Your task to perform on an android device: Open privacy settings Image 0: 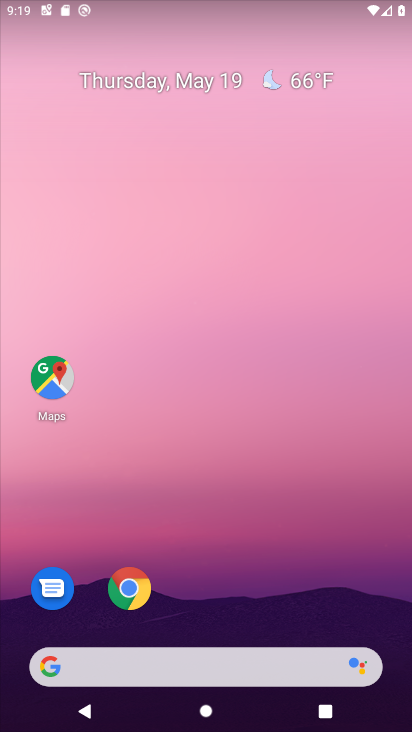
Step 0: drag from (322, 556) to (337, 229)
Your task to perform on an android device: Open privacy settings Image 1: 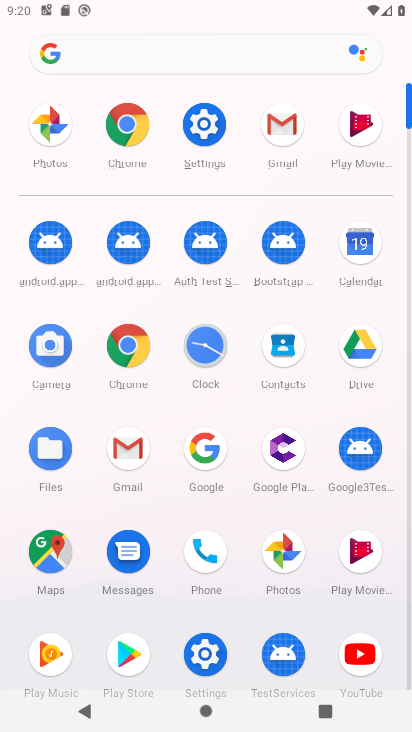
Step 1: click (203, 126)
Your task to perform on an android device: Open privacy settings Image 2: 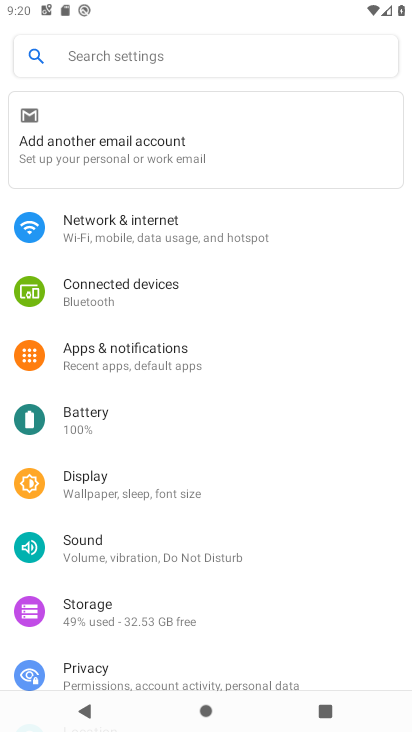
Step 2: drag from (332, 480) to (346, 377)
Your task to perform on an android device: Open privacy settings Image 3: 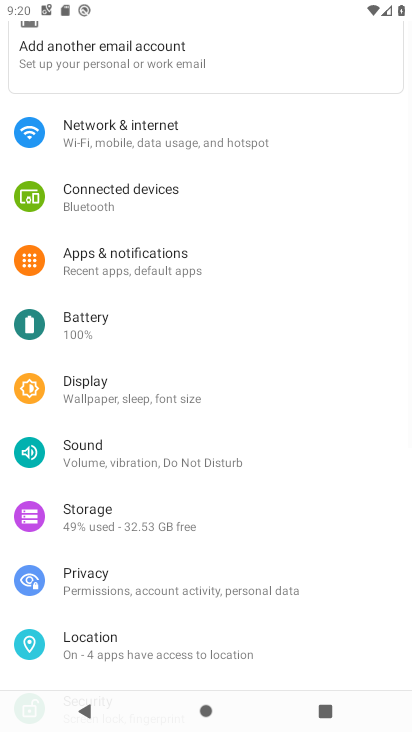
Step 3: drag from (336, 587) to (345, 451)
Your task to perform on an android device: Open privacy settings Image 4: 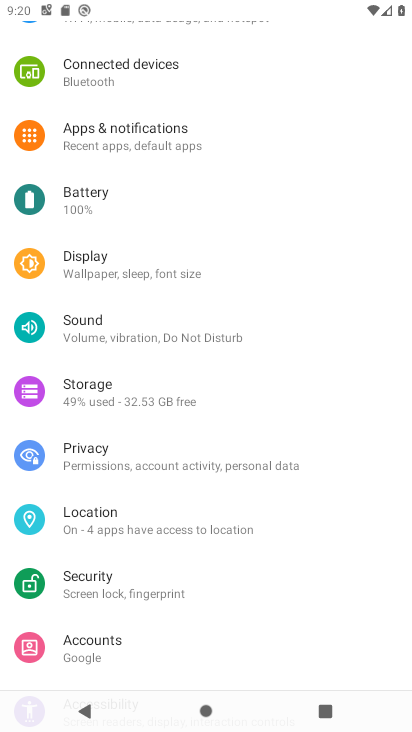
Step 4: drag from (352, 557) to (362, 465)
Your task to perform on an android device: Open privacy settings Image 5: 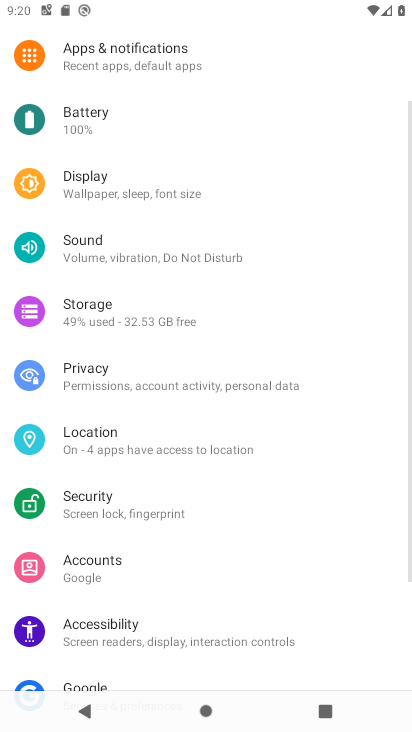
Step 5: drag from (355, 598) to (374, 475)
Your task to perform on an android device: Open privacy settings Image 6: 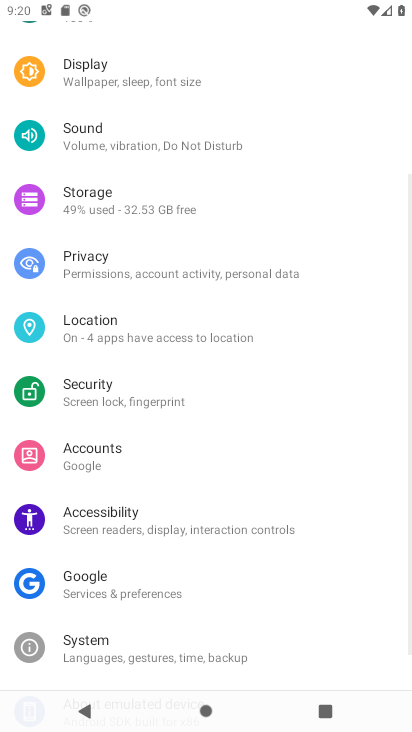
Step 6: drag from (355, 601) to (368, 485)
Your task to perform on an android device: Open privacy settings Image 7: 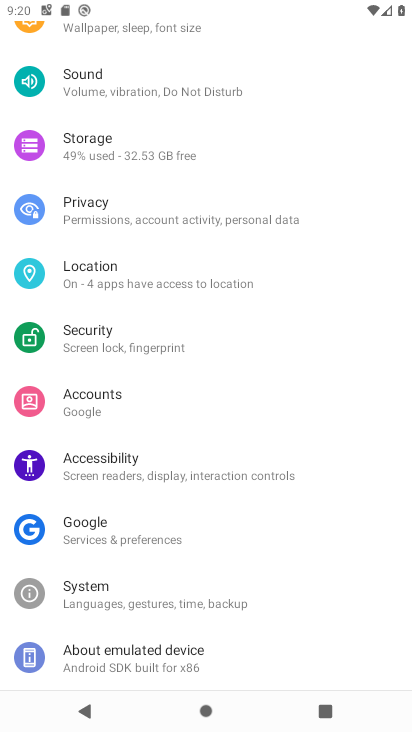
Step 7: drag from (350, 605) to (362, 462)
Your task to perform on an android device: Open privacy settings Image 8: 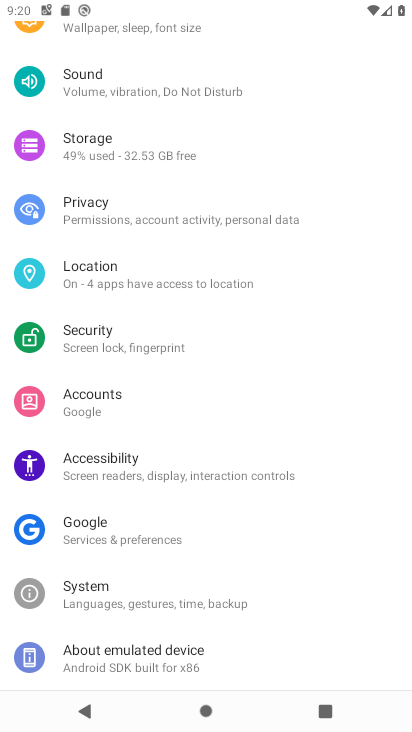
Step 8: drag from (361, 338) to (344, 434)
Your task to perform on an android device: Open privacy settings Image 9: 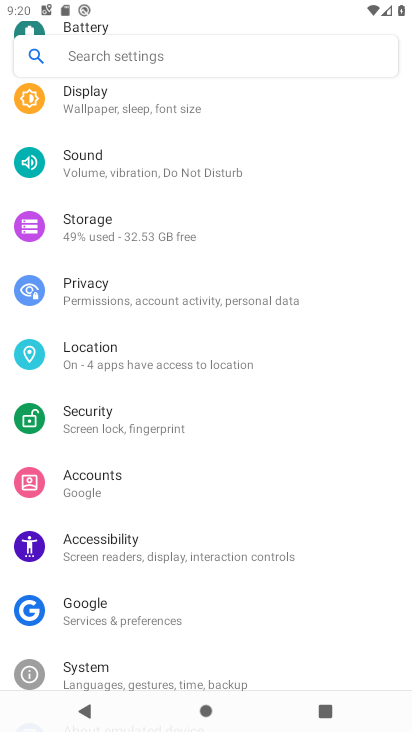
Step 9: drag from (354, 328) to (331, 461)
Your task to perform on an android device: Open privacy settings Image 10: 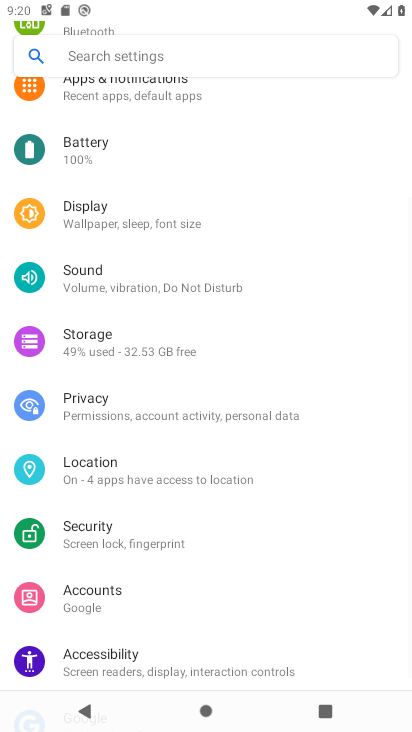
Step 10: drag from (341, 330) to (345, 435)
Your task to perform on an android device: Open privacy settings Image 11: 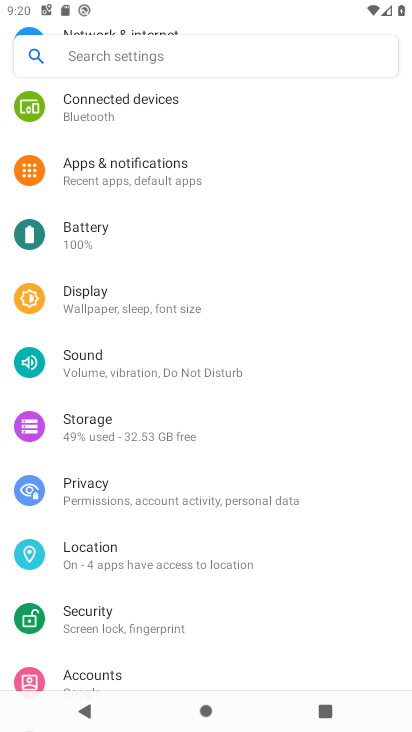
Step 11: click (216, 498)
Your task to perform on an android device: Open privacy settings Image 12: 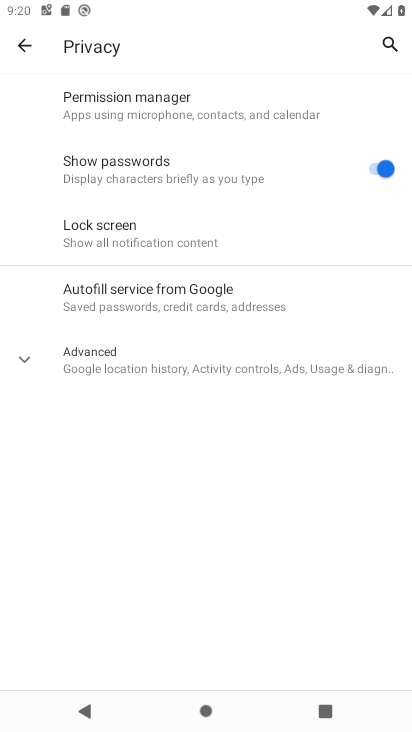
Step 12: task complete